Your task to perform on an android device: Do I have any events this weekend? Image 0: 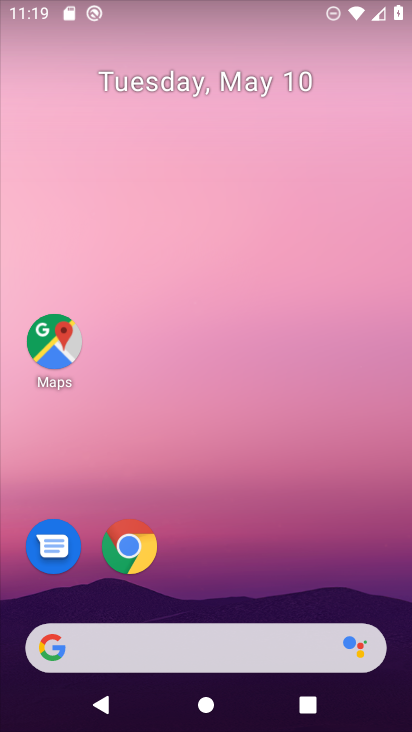
Step 0: drag from (338, 545) to (313, 181)
Your task to perform on an android device: Do I have any events this weekend? Image 1: 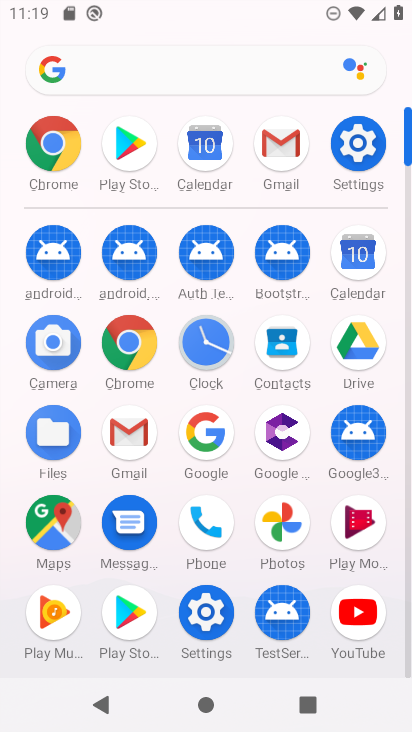
Step 1: click (216, 156)
Your task to perform on an android device: Do I have any events this weekend? Image 2: 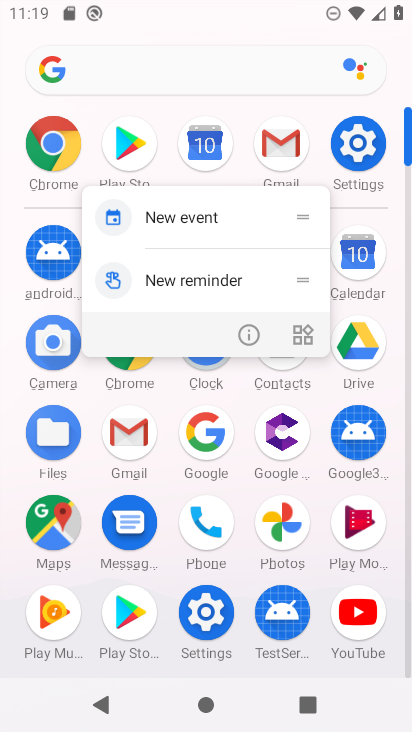
Step 2: click (202, 151)
Your task to perform on an android device: Do I have any events this weekend? Image 3: 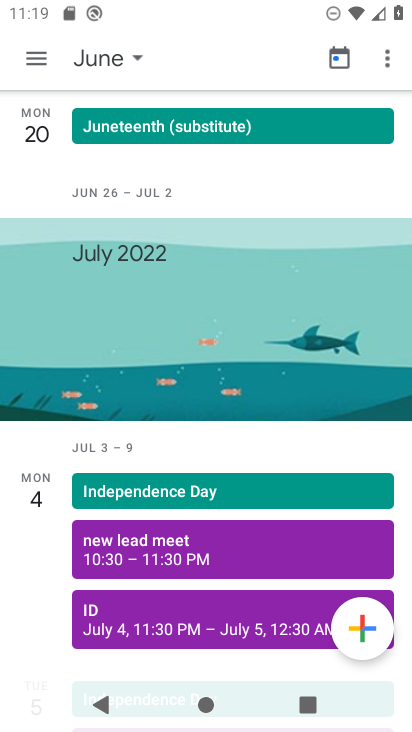
Step 3: click (90, 61)
Your task to perform on an android device: Do I have any events this weekend? Image 4: 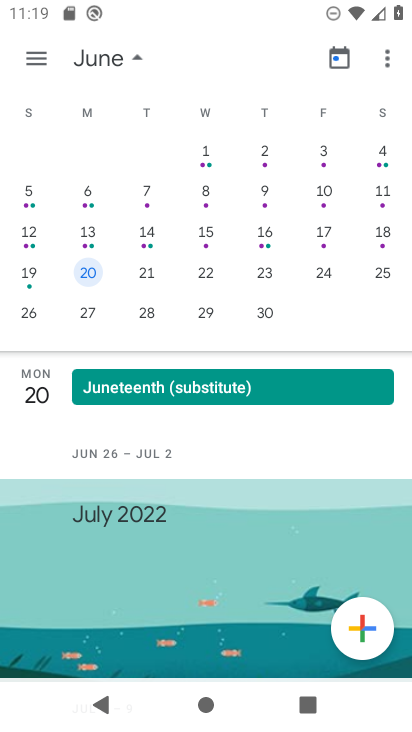
Step 4: click (101, 53)
Your task to perform on an android device: Do I have any events this weekend? Image 5: 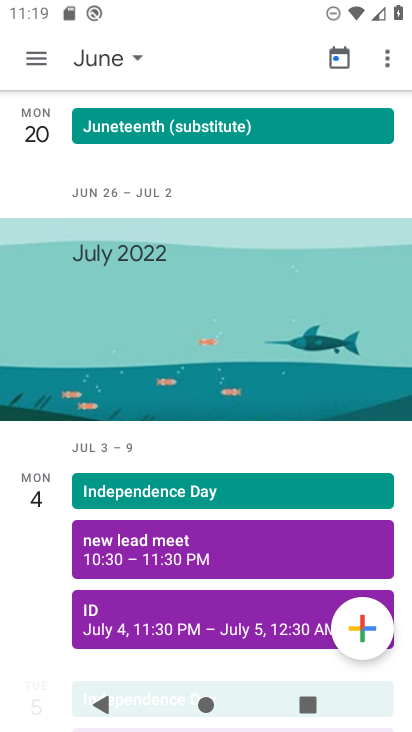
Step 5: click (32, 48)
Your task to perform on an android device: Do I have any events this weekend? Image 6: 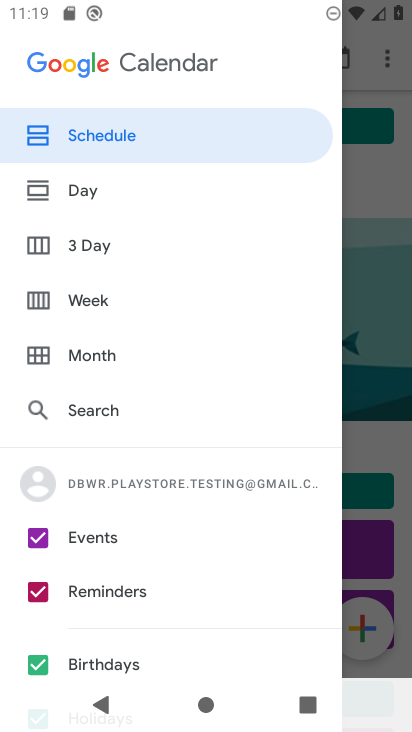
Step 6: click (116, 313)
Your task to perform on an android device: Do I have any events this weekend? Image 7: 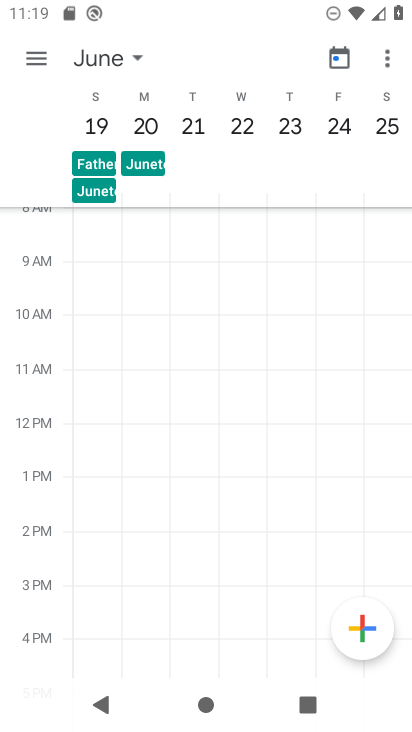
Step 7: task complete